Your task to perform on an android device: Open the calendar app, open the side menu, and click the "Day" option Image 0: 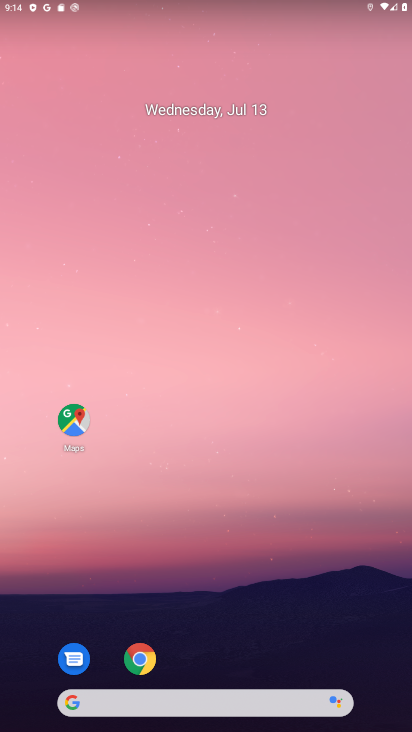
Step 0: press home button
Your task to perform on an android device: Open the calendar app, open the side menu, and click the "Day" option Image 1: 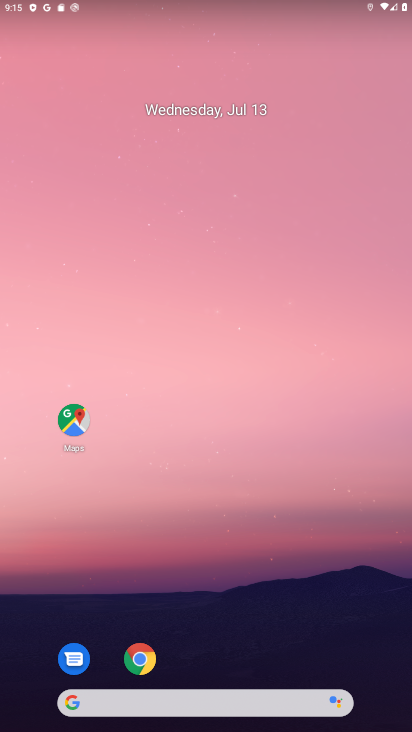
Step 1: drag from (212, 653) to (183, 90)
Your task to perform on an android device: Open the calendar app, open the side menu, and click the "Day" option Image 2: 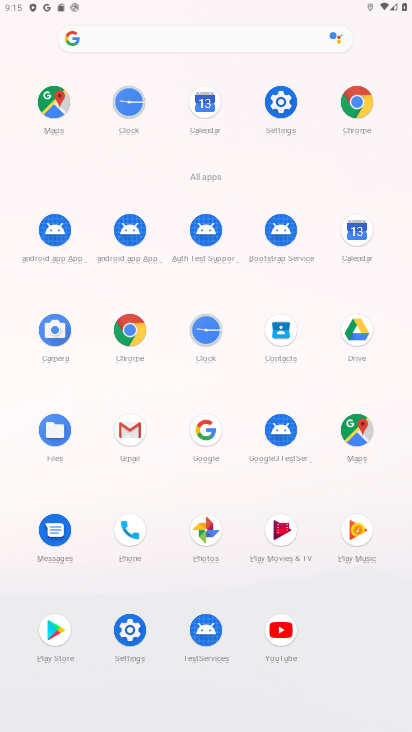
Step 2: click (355, 231)
Your task to perform on an android device: Open the calendar app, open the side menu, and click the "Day" option Image 3: 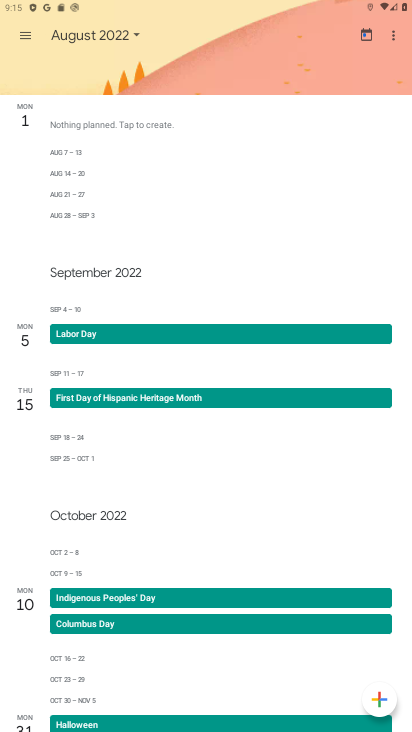
Step 3: click (23, 32)
Your task to perform on an android device: Open the calendar app, open the side menu, and click the "Day" option Image 4: 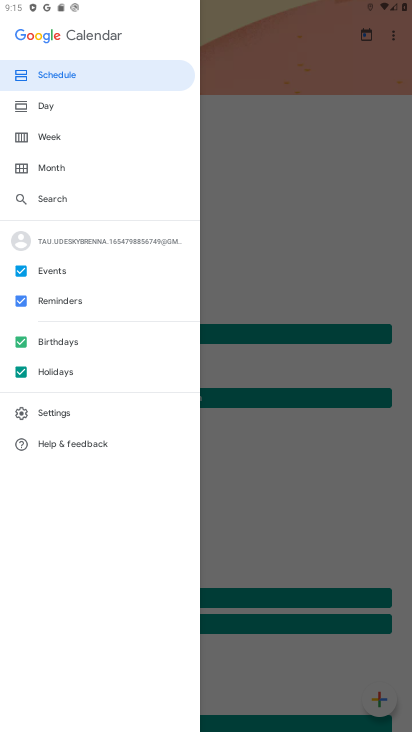
Step 4: click (43, 105)
Your task to perform on an android device: Open the calendar app, open the side menu, and click the "Day" option Image 5: 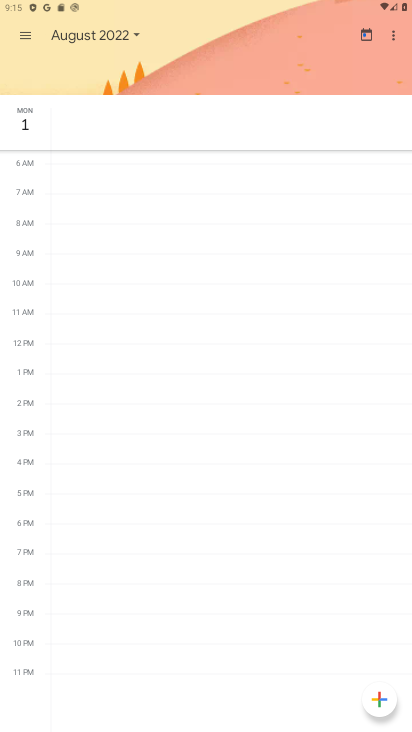
Step 5: task complete